Your task to perform on an android device: Open Google Chrome and open the bookmarks view Image 0: 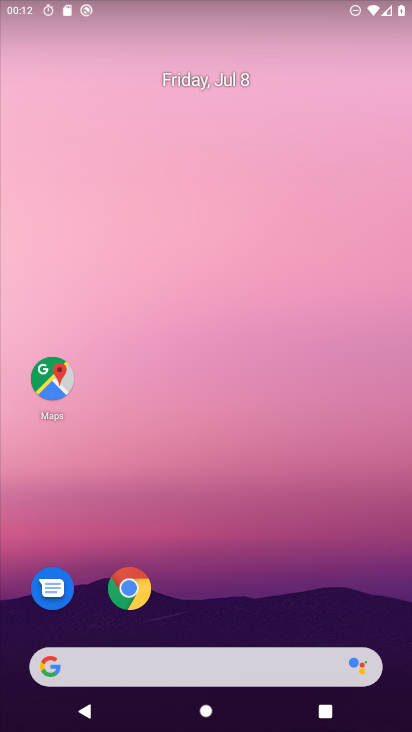
Step 0: drag from (300, 571) to (300, 99)
Your task to perform on an android device: Open Google Chrome and open the bookmarks view Image 1: 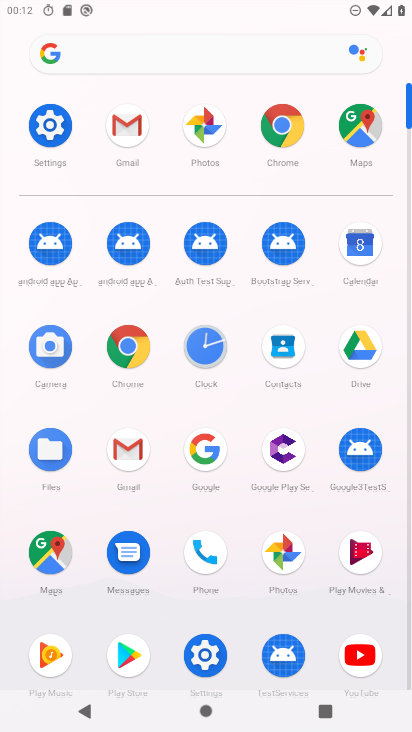
Step 1: click (279, 127)
Your task to perform on an android device: Open Google Chrome and open the bookmarks view Image 2: 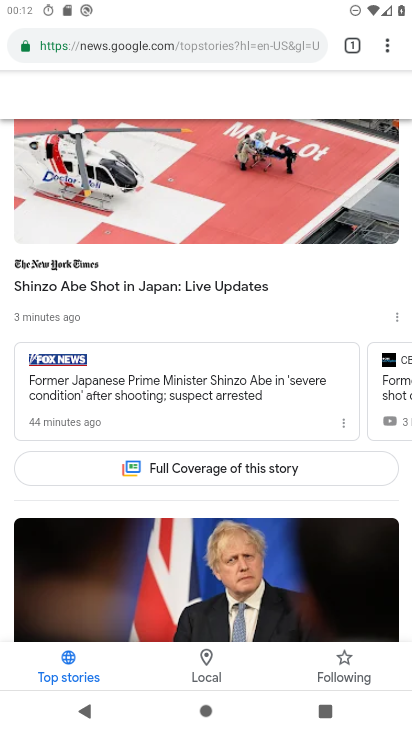
Step 2: task complete